Your task to perform on an android device: Show the shopping cart on target. Add dell alienware to the cart on target Image 0: 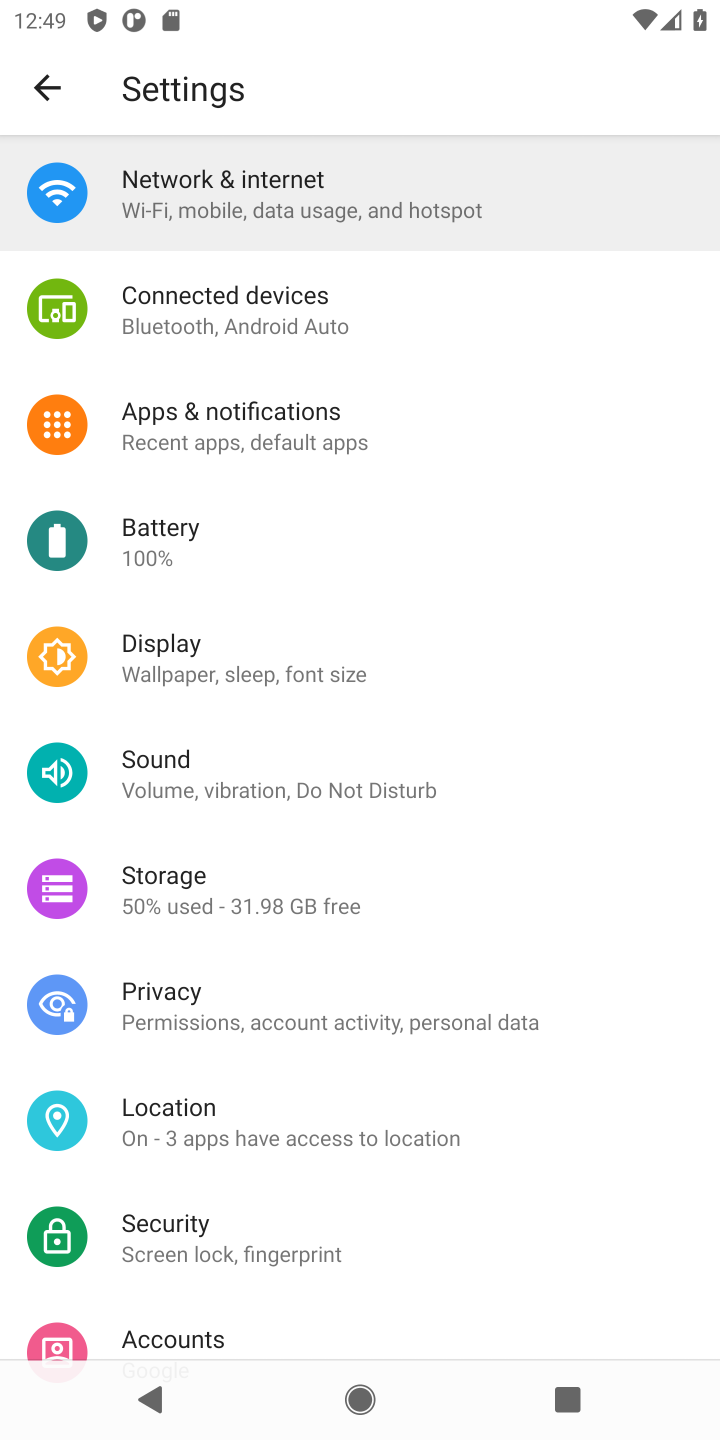
Step 0: press home button
Your task to perform on an android device: Show the shopping cart on target. Add dell alienware to the cart on target Image 1: 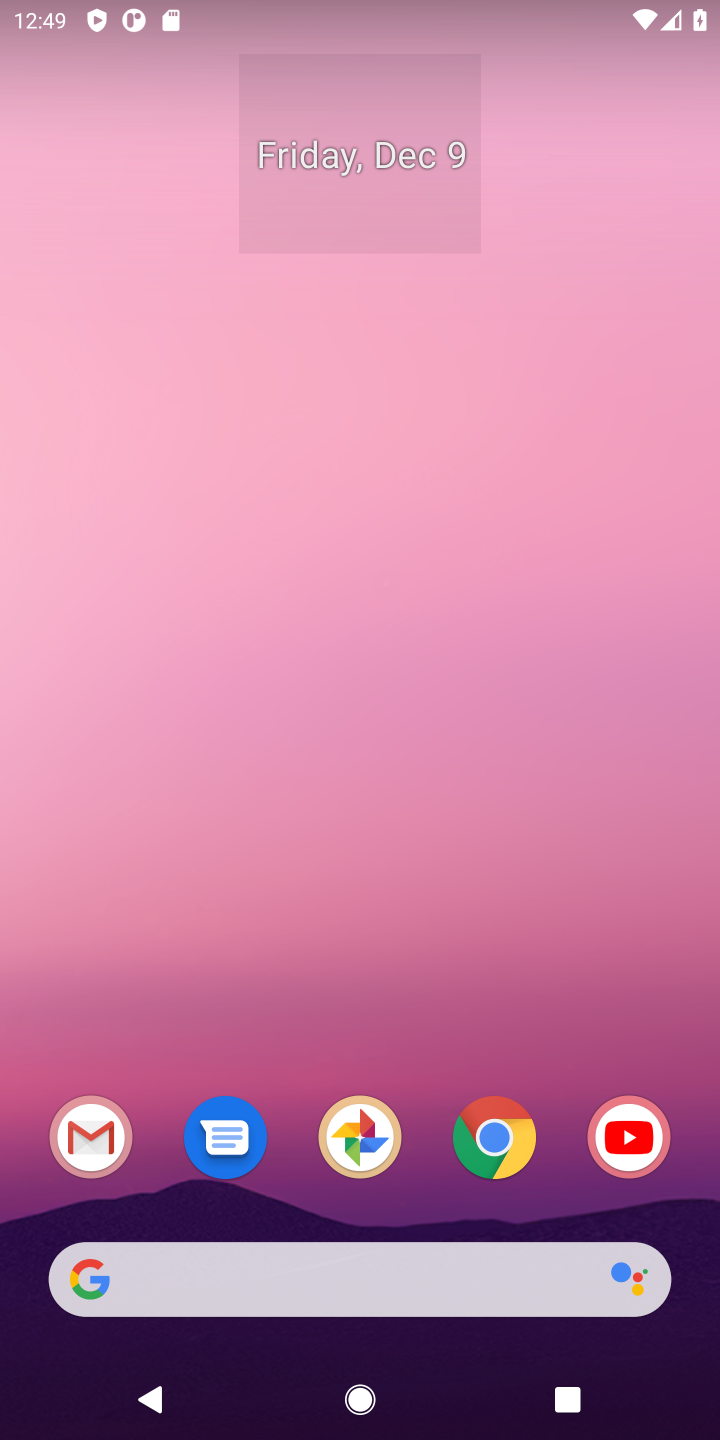
Step 1: click (493, 1150)
Your task to perform on an android device: Show the shopping cart on target. Add dell alienware to the cart on target Image 2: 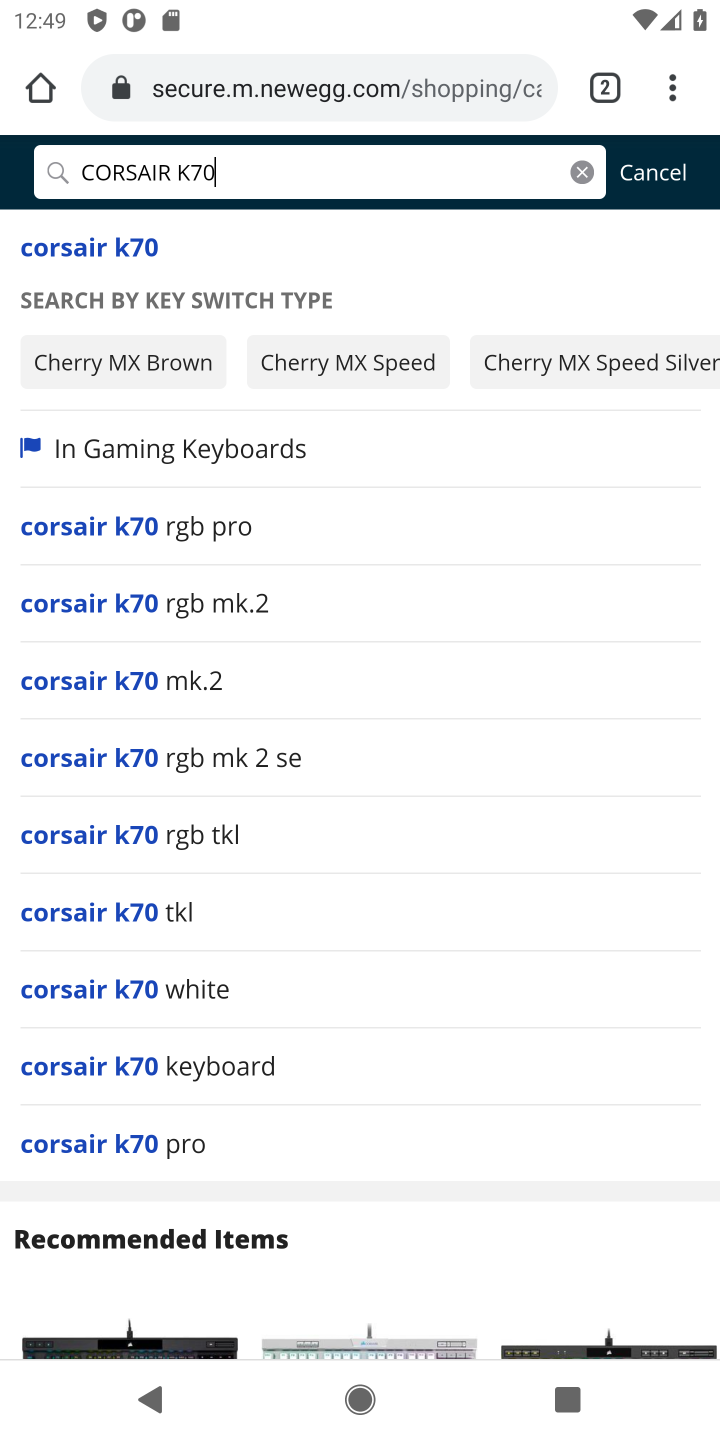
Step 2: click (274, 97)
Your task to perform on an android device: Show the shopping cart on target. Add dell alienware to the cart on target Image 3: 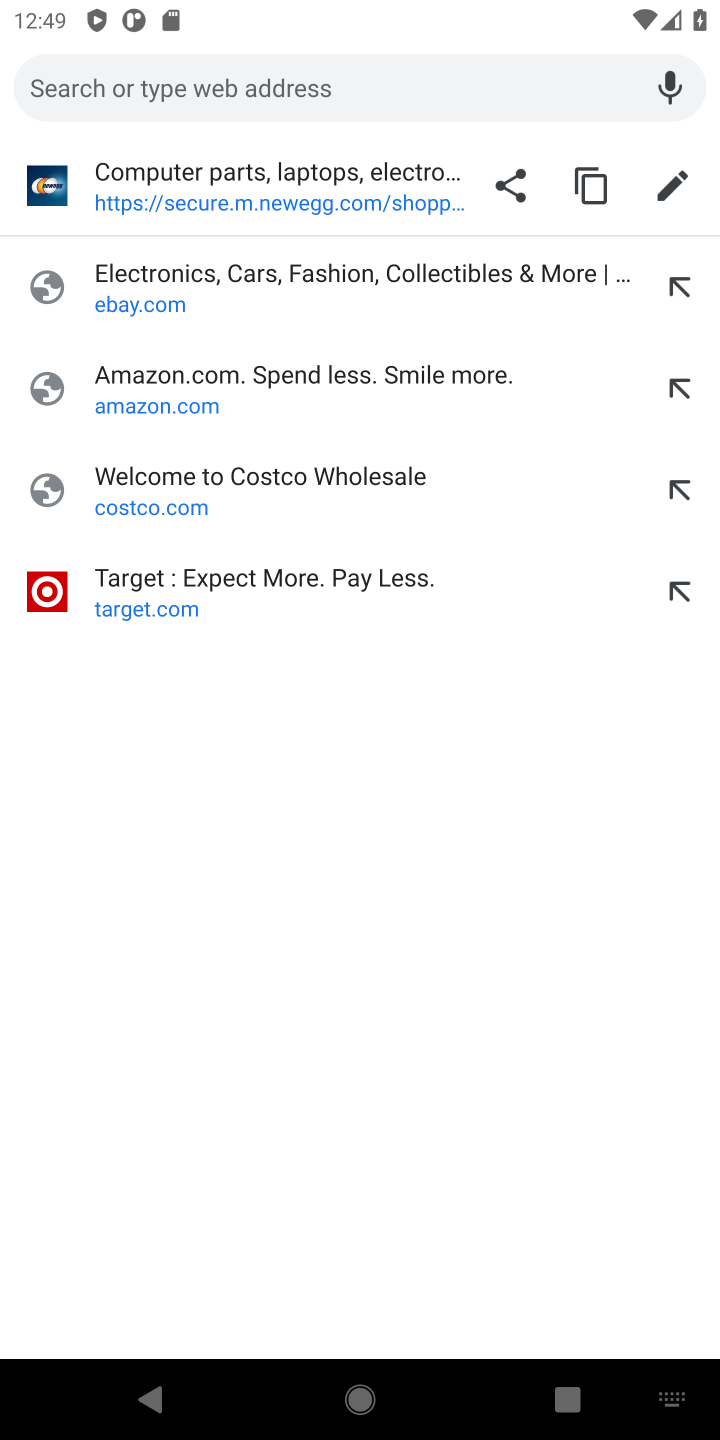
Step 3: click (336, 591)
Your task to perform on an android device: Show the shopping cart on target. Add dell alienware to the cart on target Image 4: 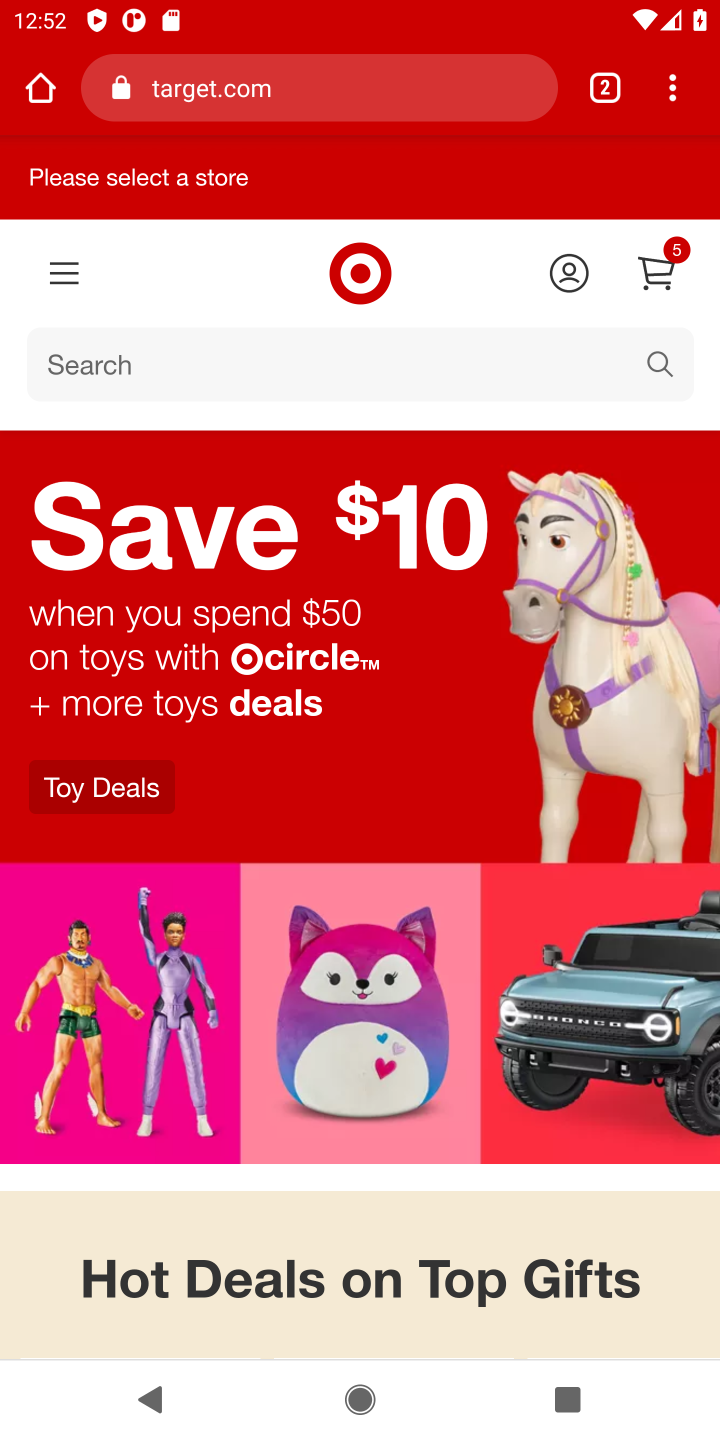
Step 4: task complete